Your task to perform on an android device: open app "Google Calendar" Image 0: 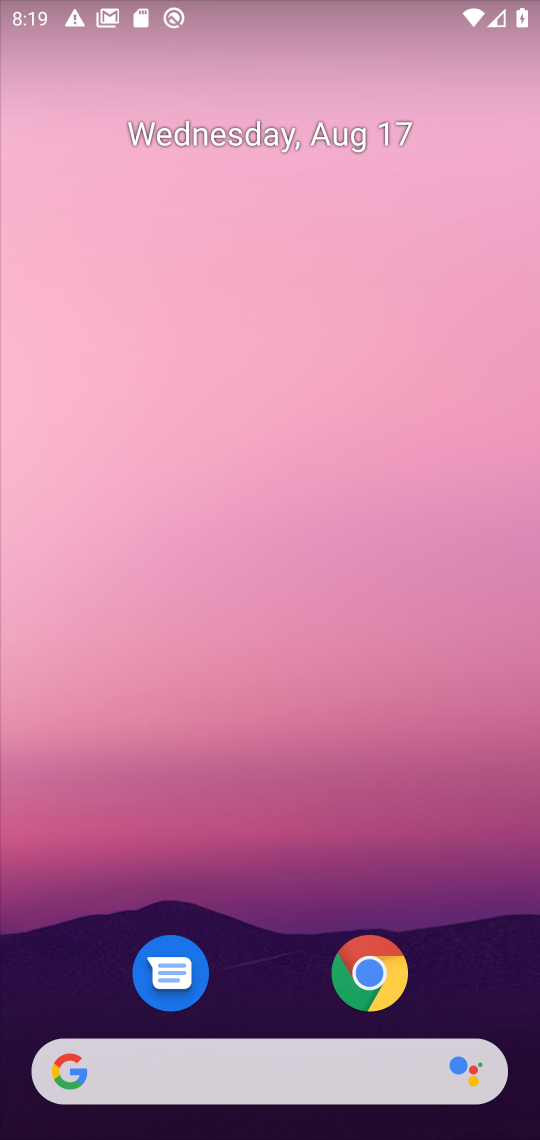
Step 0: drag from (283, 1019) to (335, 275)
Your task to perform on an android device: open app "Google Calendar" Image 1: 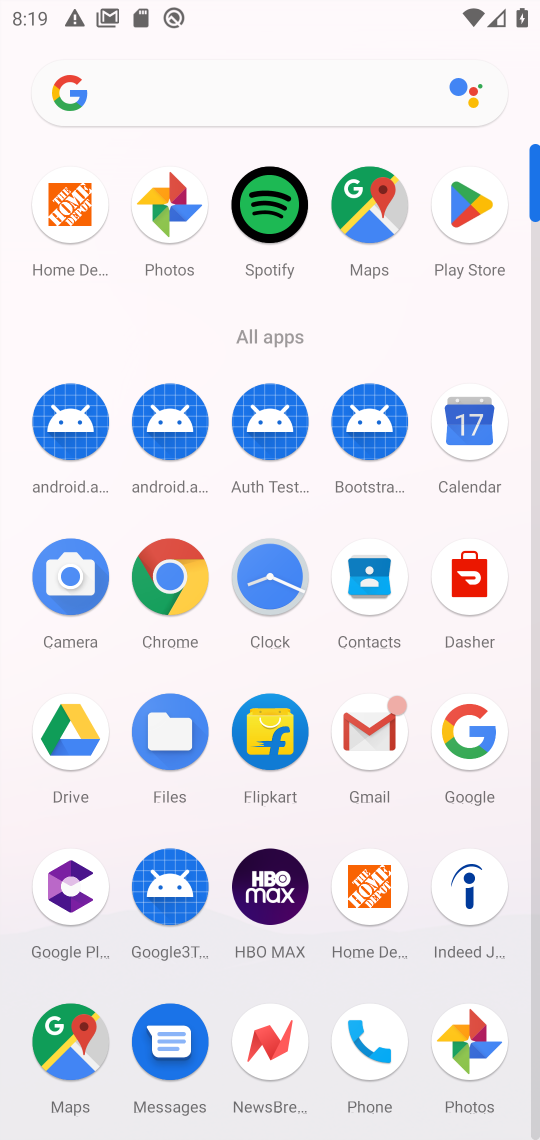
Step 1: click (482, 430)
Your task to perform on an android device: open app "Google Calendar" Image 2: 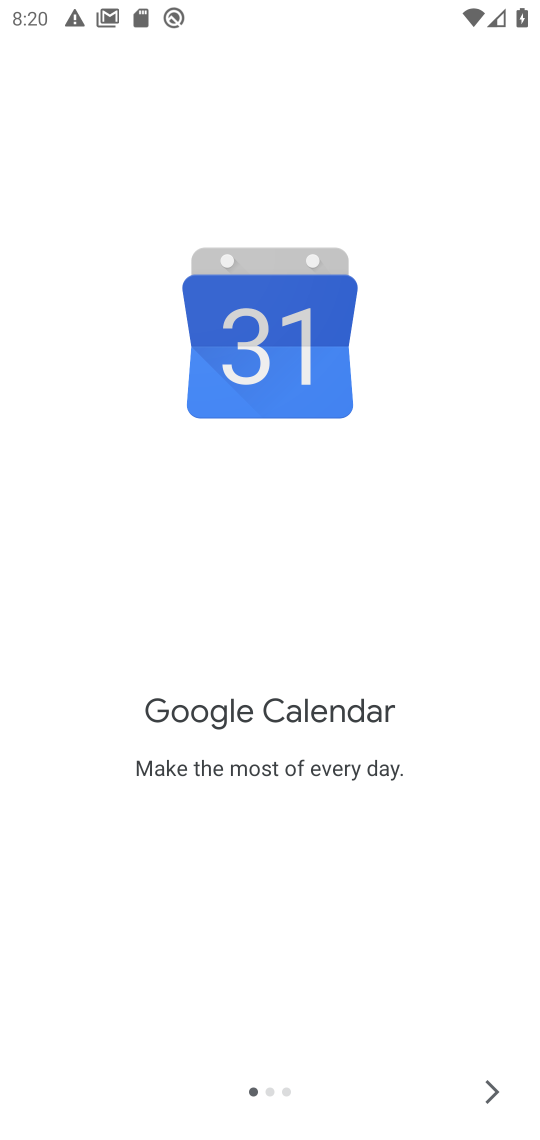
Step 2: click (498, 1107)
Your task to perform on an android device: open app "Google Calendar" Image 3: 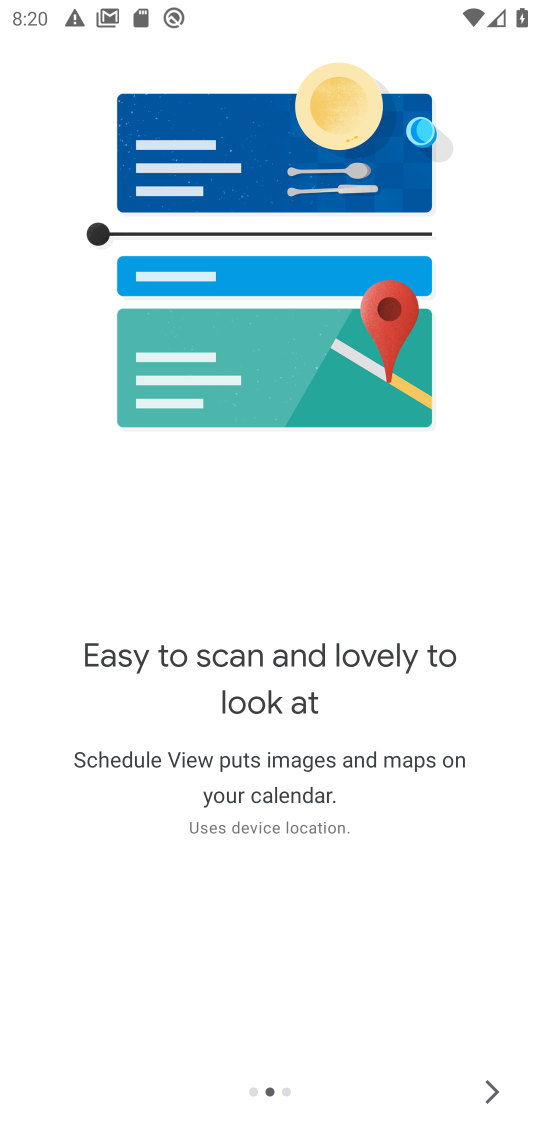
Step 3: click (489, 1087)
Your task to perform on an android device: open app "Google Calendar" Image 4: 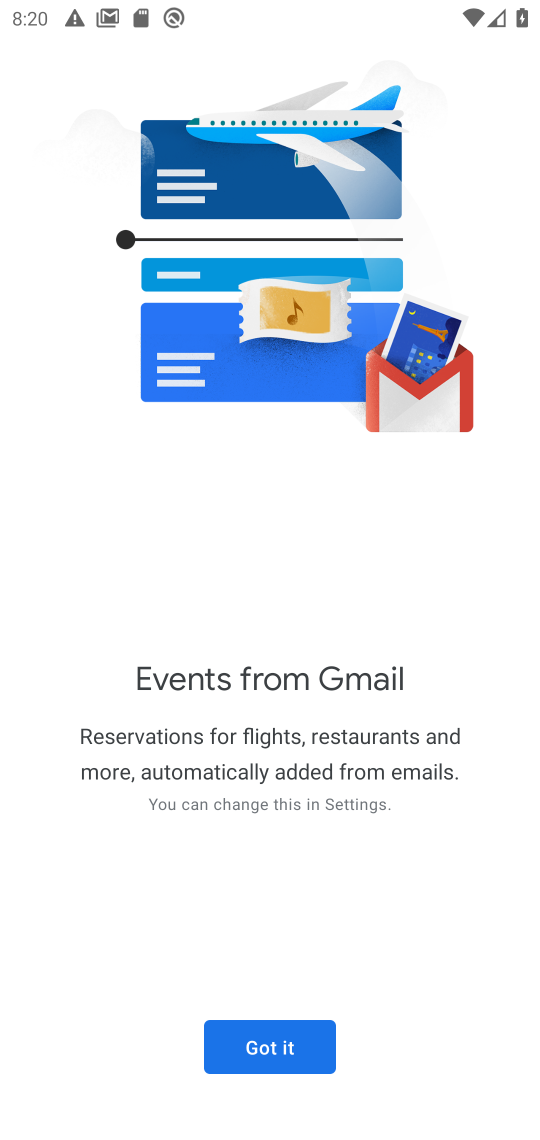
Step 4: click (304, 1041)
Your task to perform on an android device: open app "Google Calendar" Image 5: 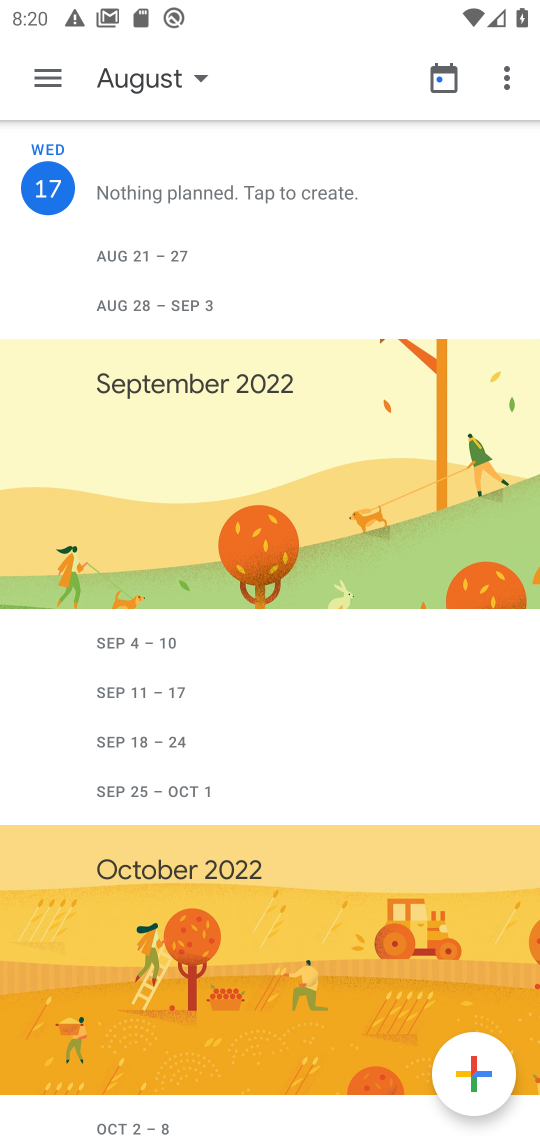
Step 5: task complete